Your task to perform on an android device: Go to network settings Image 0: 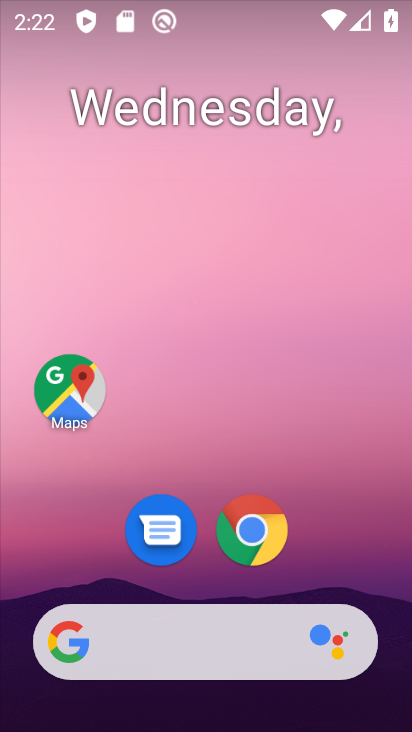
Step 0: drag from (193, 630) to (218, 112)
Your task to perform on an android device: Go to network settings Image 1: 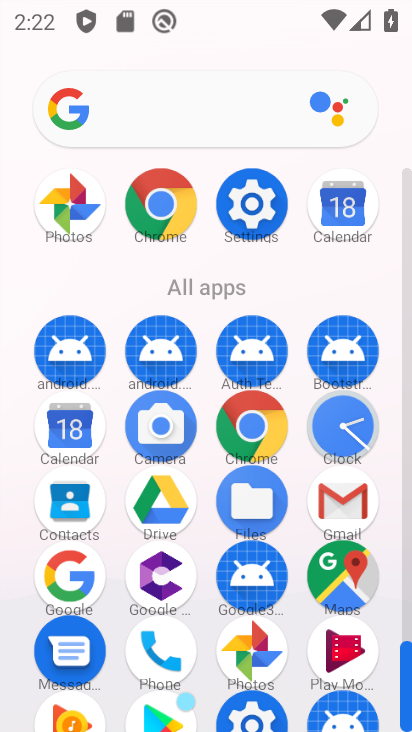
Step 1: click (239, 217)
Your task to perform on an android device: Go to network settings Image 2: 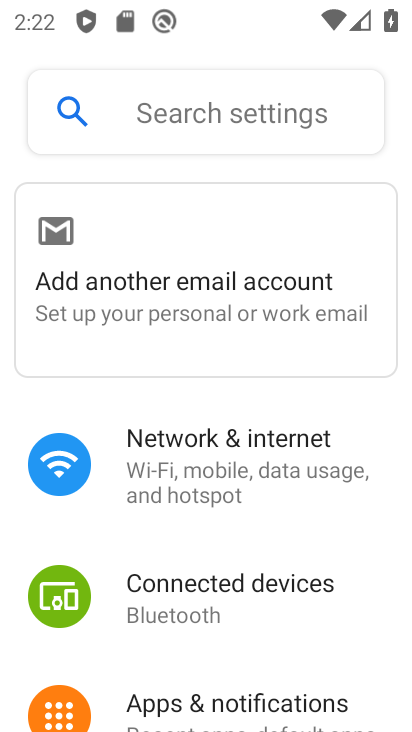
Step 2: click (252, 476)
Your task to perform on an android device: Go to network settings Image 3: 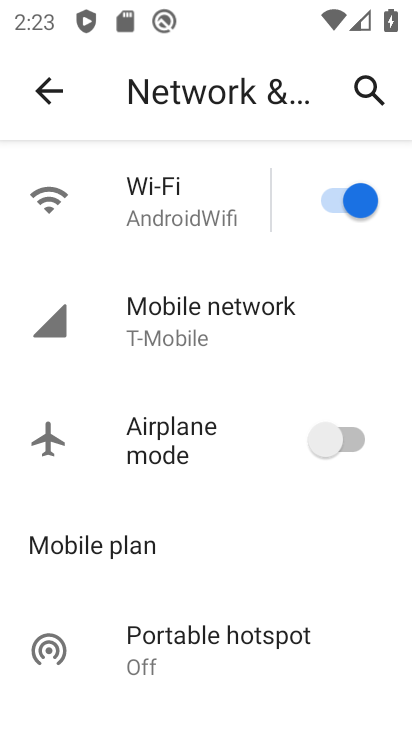
Step 3: task complete